Your task to perform on an android device: toggle notifications settings in the gmail app Image 0: 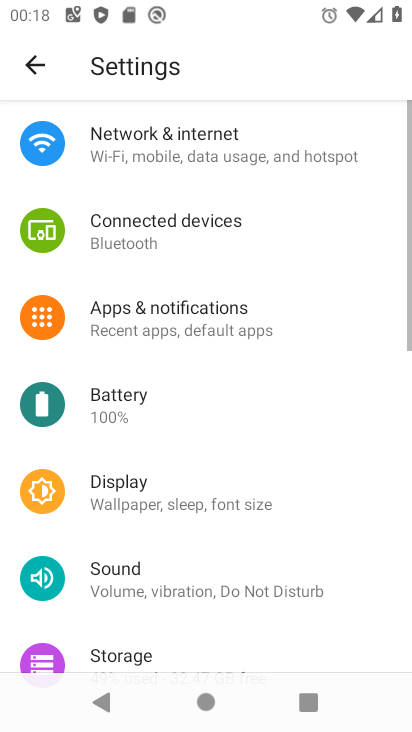
Step 0: press home button
Your task to perform on an android device: toggle notifications settings in the gmail app Image 1: 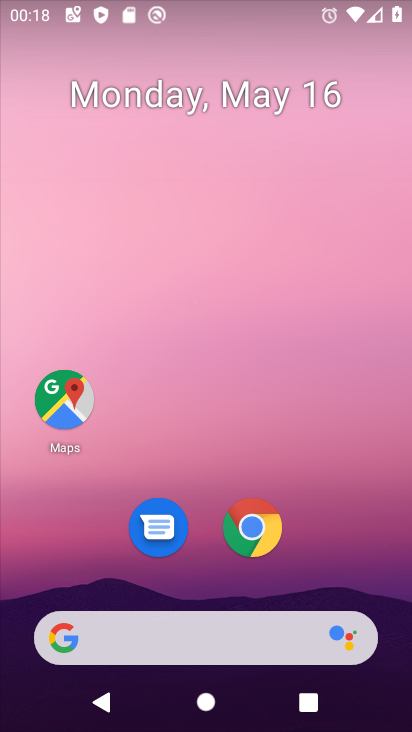
Step 1: drag from (325, 555) to (307, 125)
Your task to perform on an android device: toggle notifications settings in the gmail app Image 2: 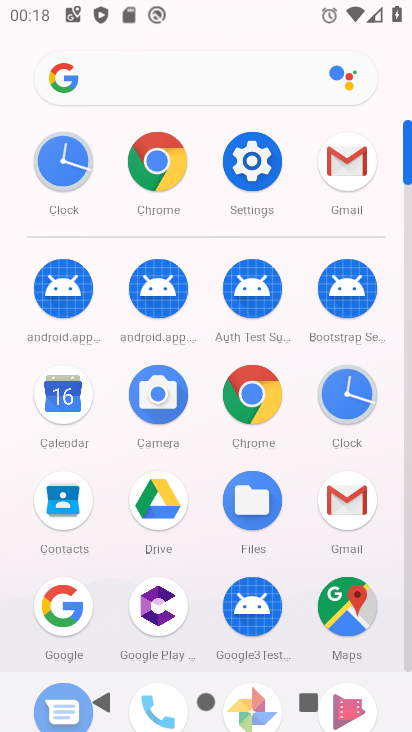
Step 2: click (339, 168)
Your task to perform on an android device: toggle notifications settings in the gmail app Image 3: 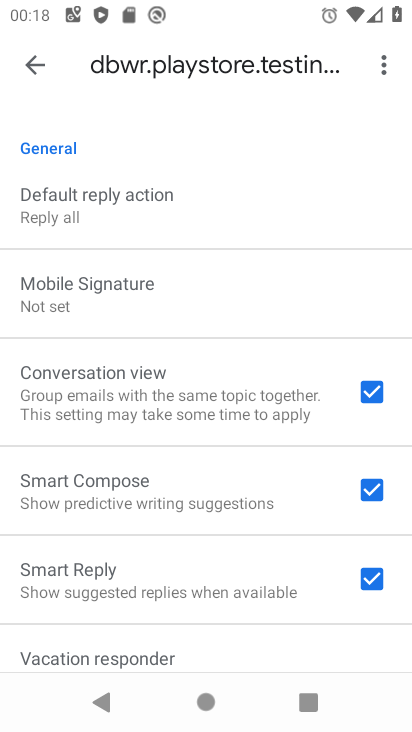
Step 3: drag from (194, 483) to (212, 664)
Your task to perform on an android device: toggle notifications settings in the gmail app Image 4: 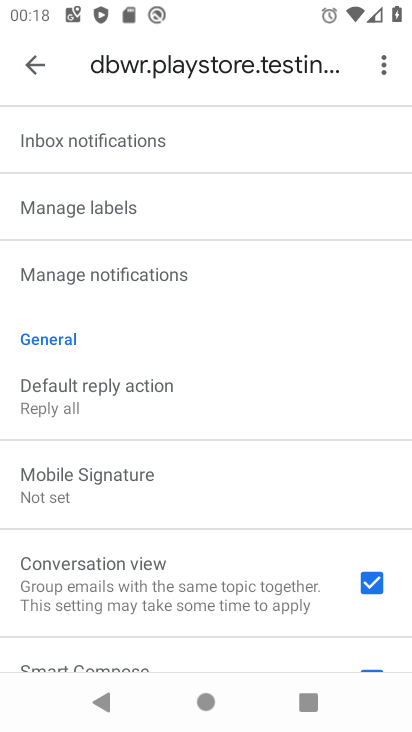
Step 4: drag from (171, 193) to (176, 468)
Your task to perform on an android device: toggle notifications settings in the gmail app Image 5: 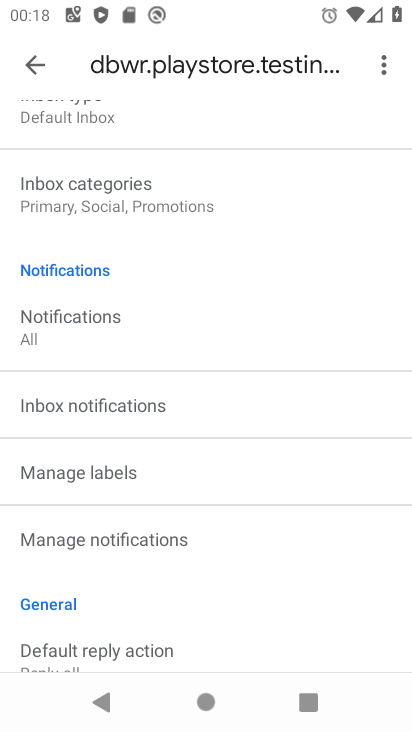
Step 5: click (188, 526)
Your task to perform on an android device: toggle notifications settings in the gmail app Image 6: 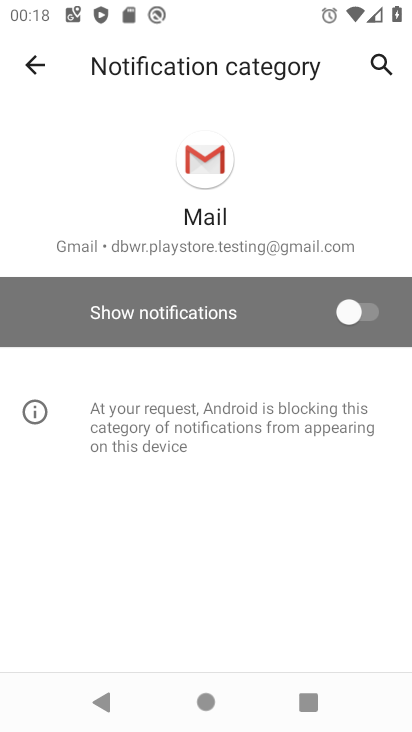
Step 6: click (308, 314)
Your task to perform on an android device: toggle notifications settings in the gmail app Image 7: 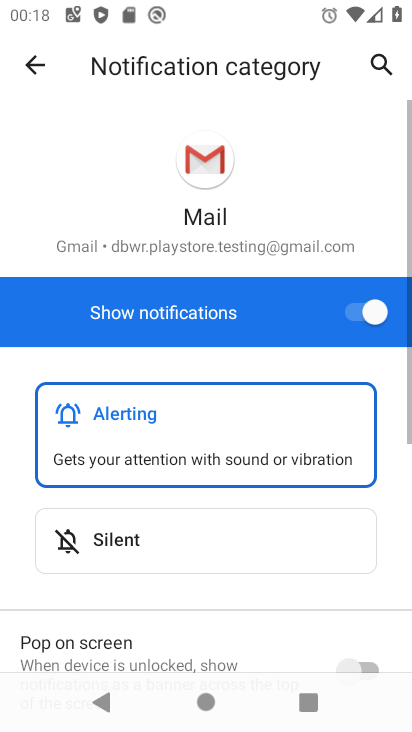
Step 7: task complete